Your task to perform on an android device: What is the recent news? Image 0: 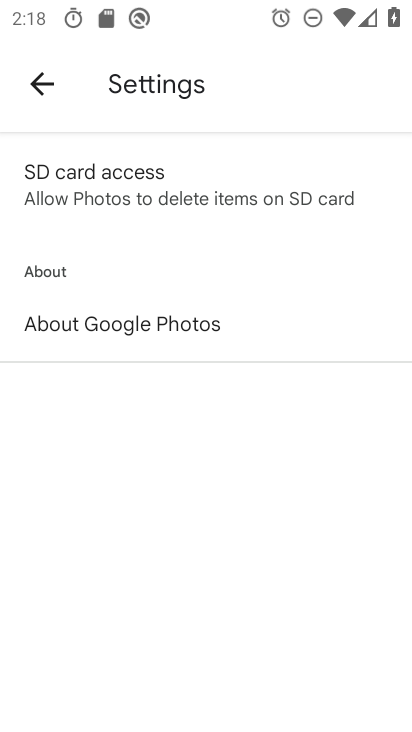
Step 0: press home button
Your task to perform on an android device: What is the recent news? Image 1: 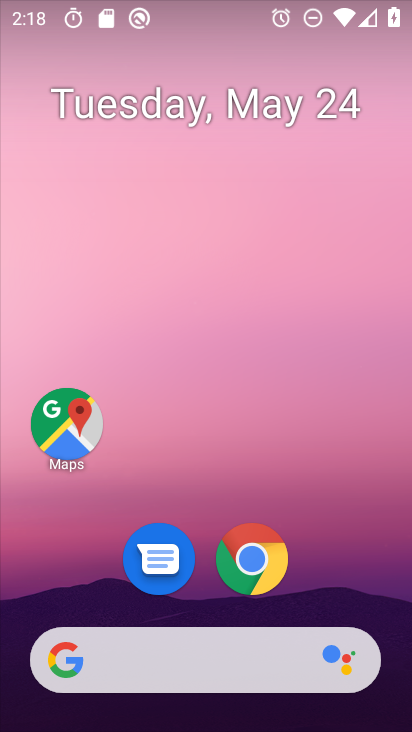
Step 1: task complete